Your task to perform on an android device: turn on bluetooth scan Image 0: 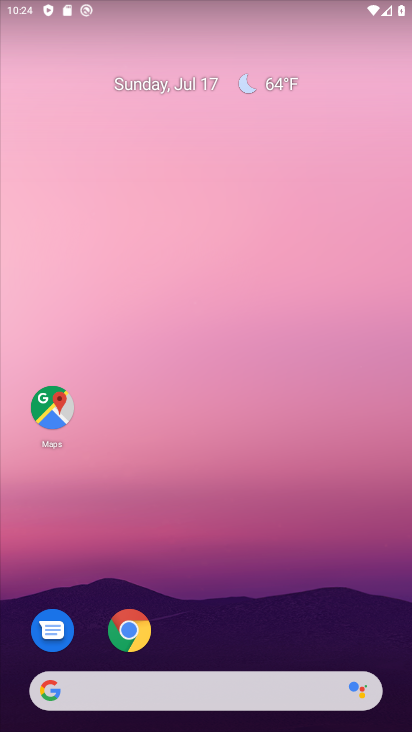
Step 0: drag from (391, 633) to (341, 166)
Your task to perform on an android device: turn on bluetooth scan Image 1: 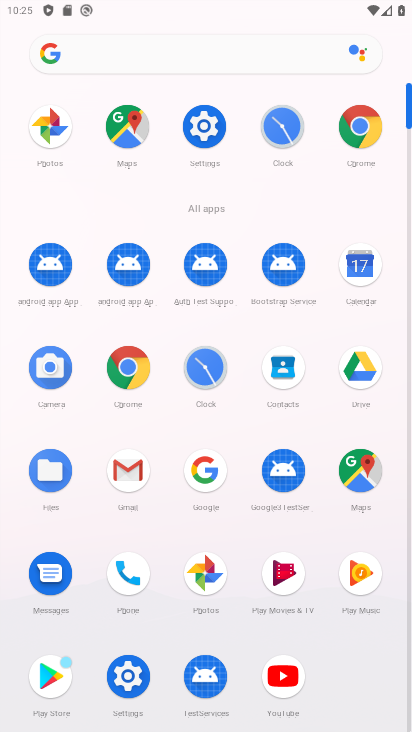
Step 1: click (125, 671)
Your task to perform on an android device: turn on bluetooth scan Image 2: 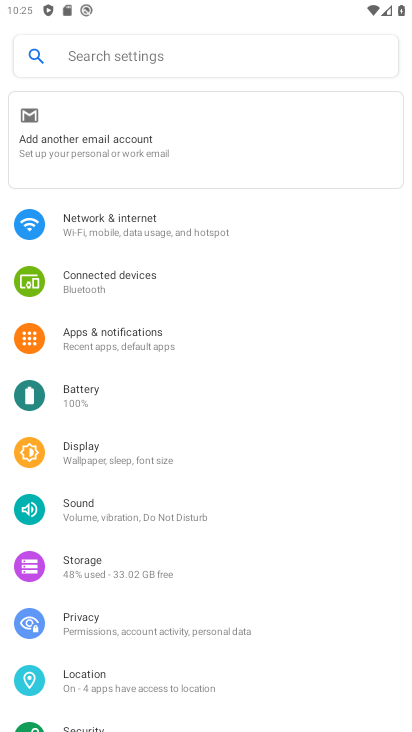
Step 2: drag from (267, 636) to (261, 397)
Your task to perform on an android device: turn on bluetooth scan Image 3: 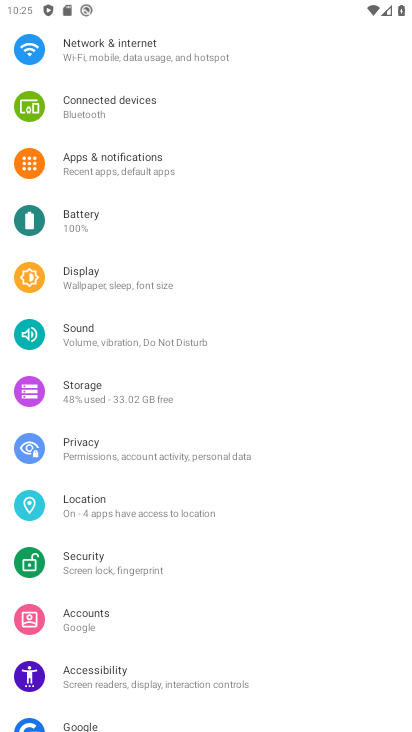
Step 3: click (100, 491)
Your task to perform on an android device: turn on bluetooth scan Image 4: 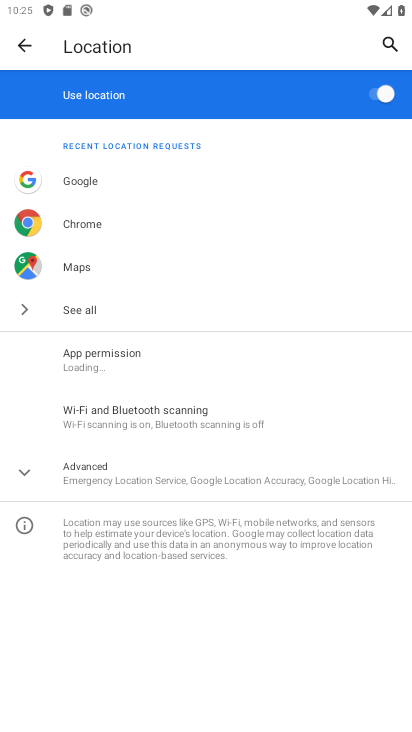
Step 4: task complete